Your task to perform on an android device: Go to notification settings Image 0: 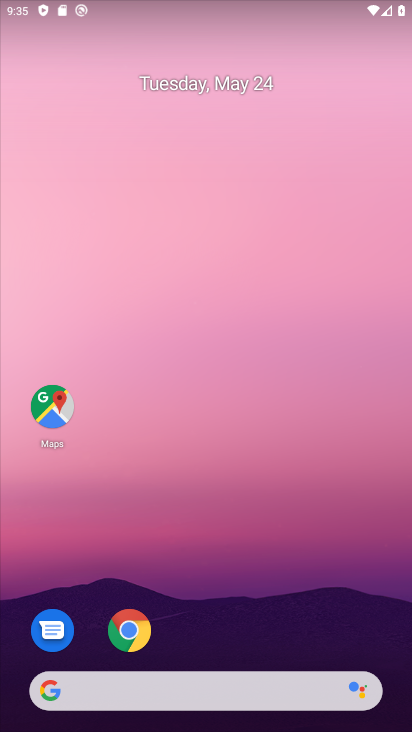
Step 0: drag from (238, 642) to (248, 107)
Your task to perform on an android device: Go to notification settings Image 1: 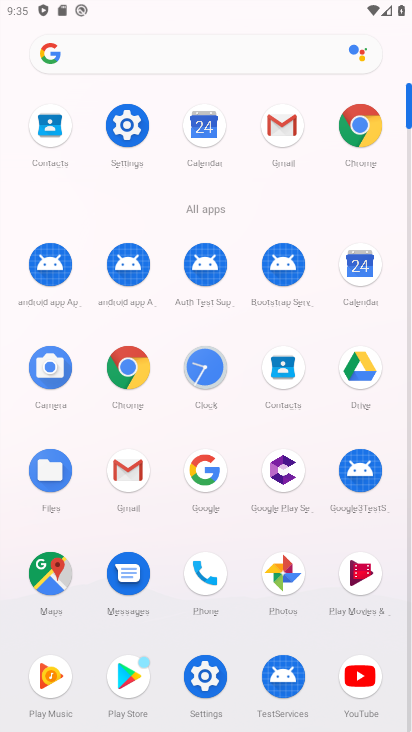
Step 1: click (121, 127)
Your task to perform on an android device: Go to notification settings Image 2: 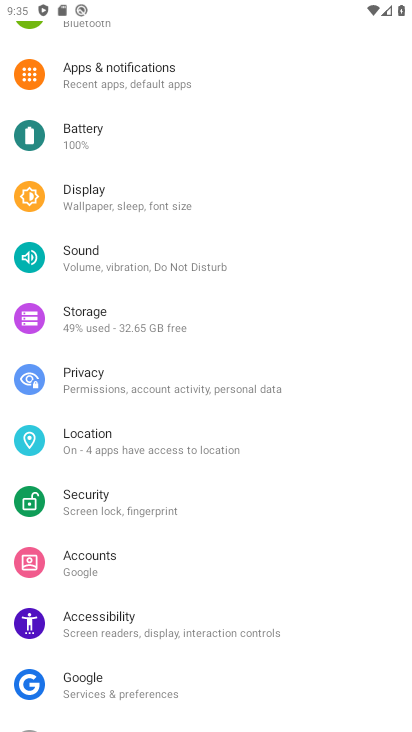
Step 2: click (128, 73)
Your task to perform on an android device: Go to notification settings Image 3: 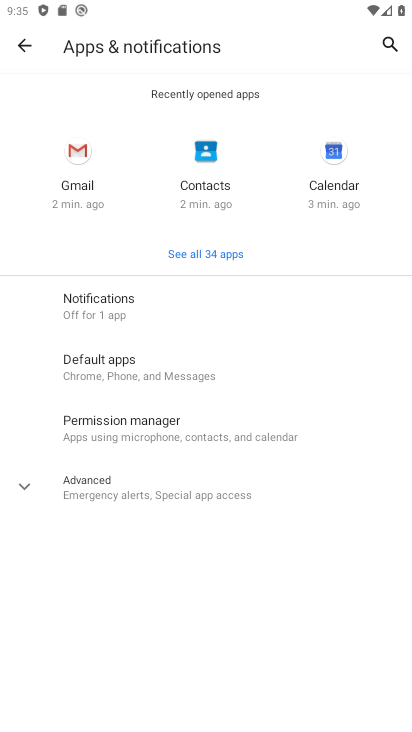
Step 3: click (143, 302)
Your task to perform on an android device: Go to notification settings Image 4: 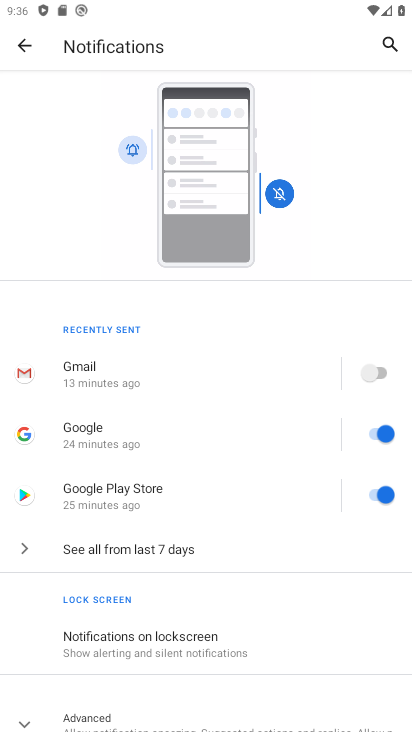
Step 4: drag from (185, 531) to (195, 231)
Your task to perform on an android device: Go to notification settings Image 5: 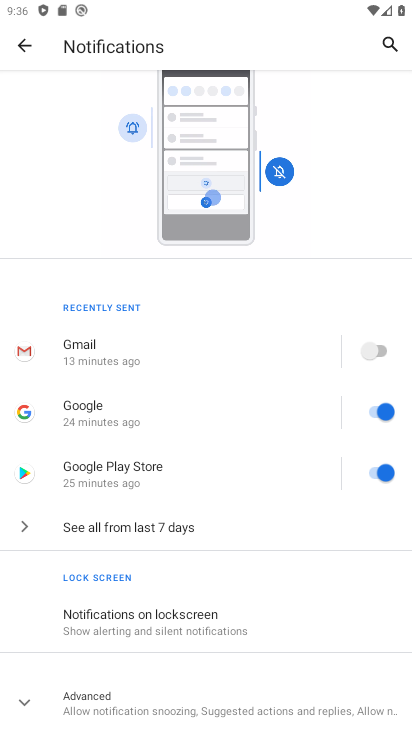
Step 5: drag from (222, 629) to (220, 281)
Your task to perform on an android device: Go to notification settings Image 6: 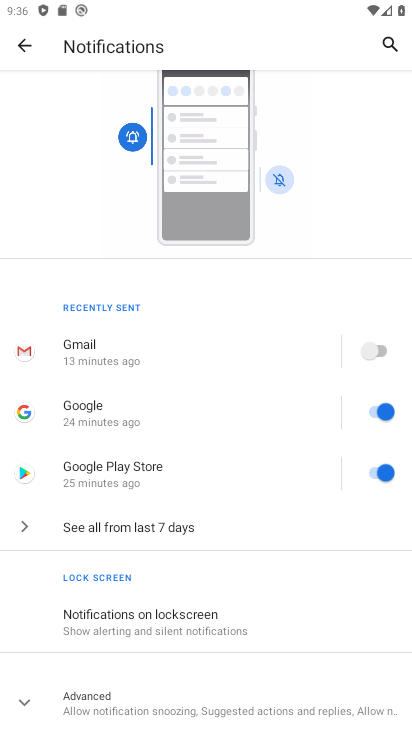
Step 6: click (26, 696)
Your task to perform on an android device: Go to notification settings Image 7: 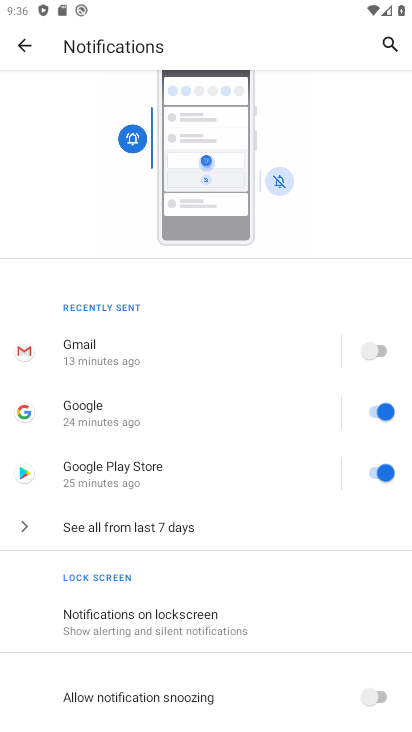
Step 7: task complete